Your task to perform on an android device: Show me popular games on the Play Store Image 0: 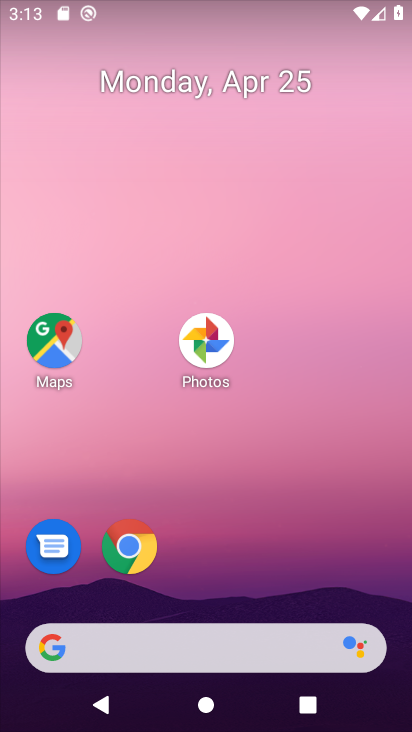
Step 0: drag from (309, 453) to (302, 188)
Your task to perform on an android device: Show me popular games on the Play Store Image 1: 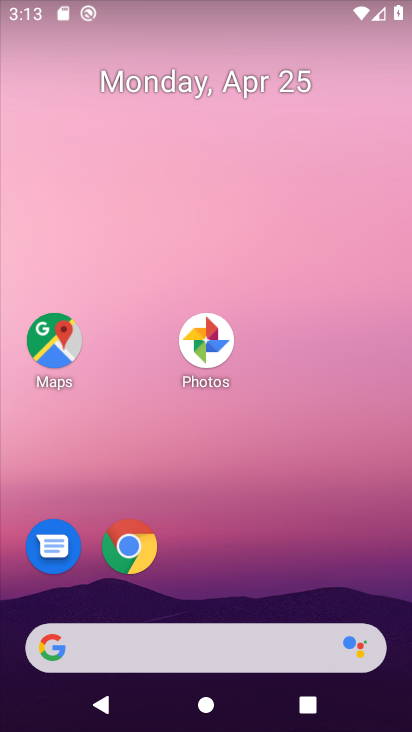
Step 1: drag from (259, 523) to (309, 254)
Your task to perform on an android device: Show me popular games on the Play Store Image 2: 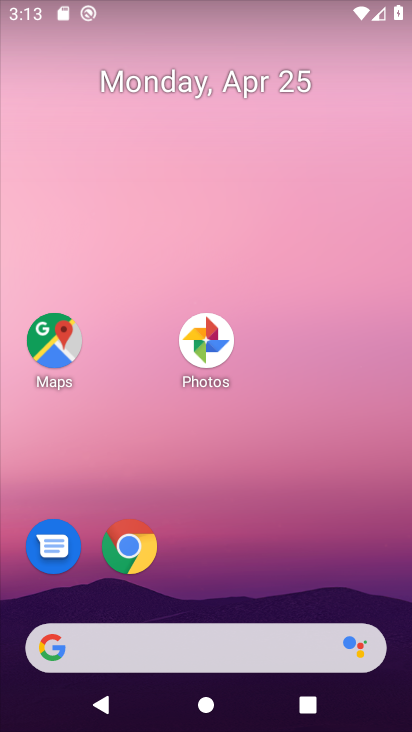
Step 2: drag from (355, 482) to (355, 264)
Your task to perform on an android device: Show me popular games on the Play Store Image 3: 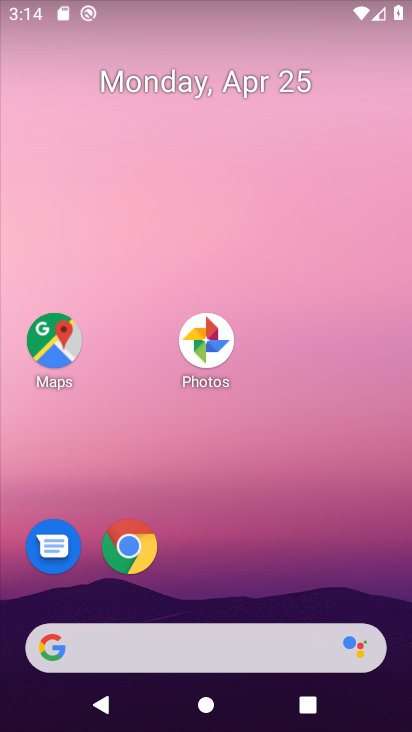
Step 3: drag from (330, 502) to (367, 199)
Your task to perform on an android device: Show me popular games on the Play Store Image 4: 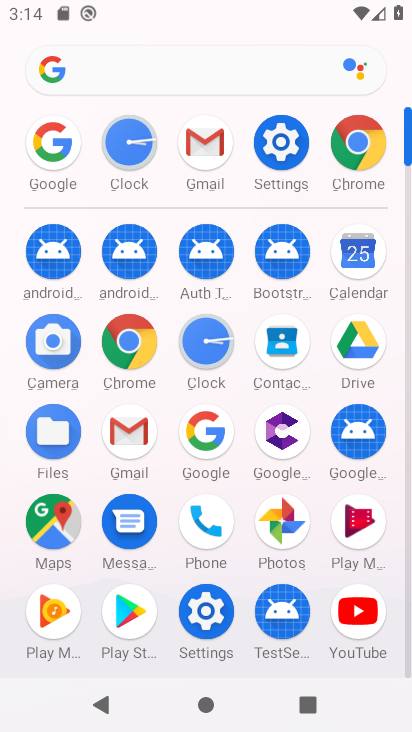
Step 4: click (116, 602)
Your task to perform on an android device: Show me popular games on the Play Store Image 5: 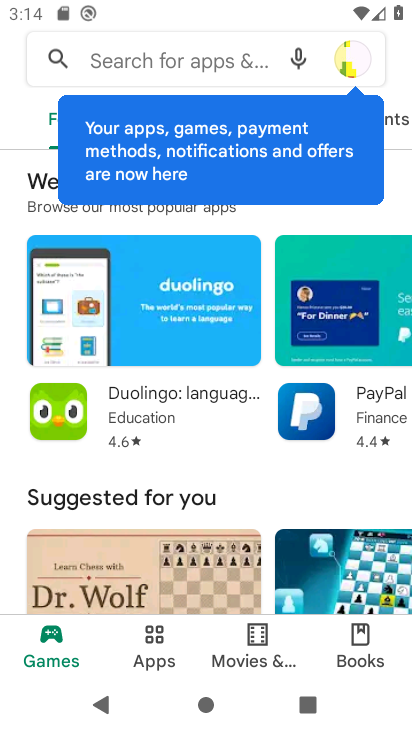
Step 5: click (389, 189)
Your task to perform on an android device: Show me popular games on the Play Store Image 6: 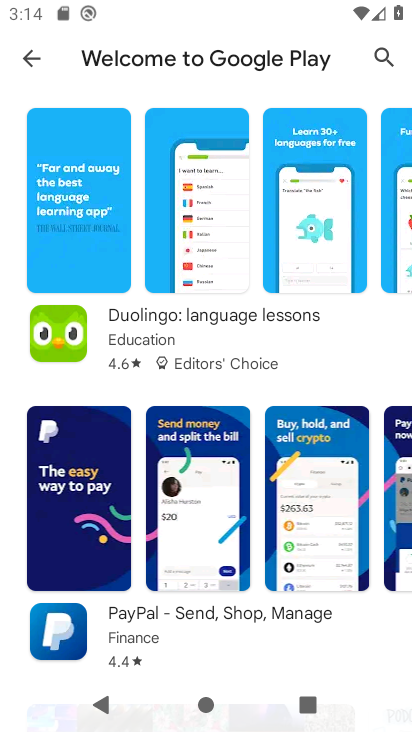
Step 6: click (37, 51)
Your task to perform on an android device: Show me popular games on the Play Store Image 7: 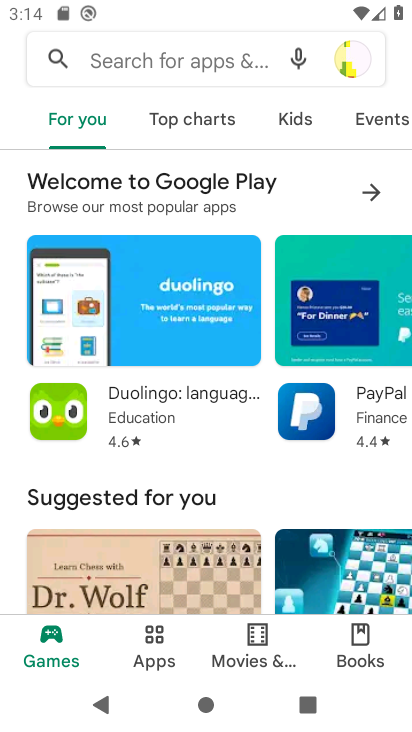
Step 7: click (163, 121)
Your task to perform on an android device: Show me popular games on the Play Store Image 8: 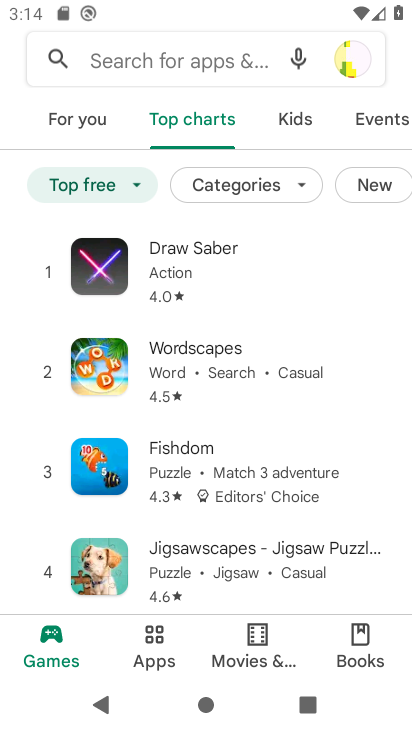
Step 8: task complete